Your task to perform on an android device: Open Google Maps Image 0: 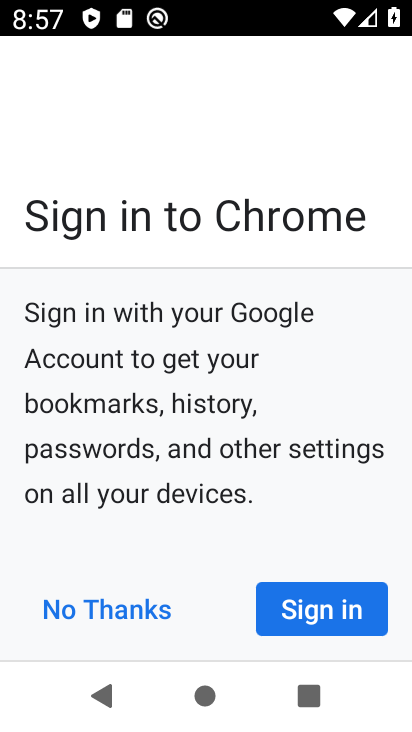
Step 0: press home button
Your task to perform on an android device: Open Google Maps Image 1: 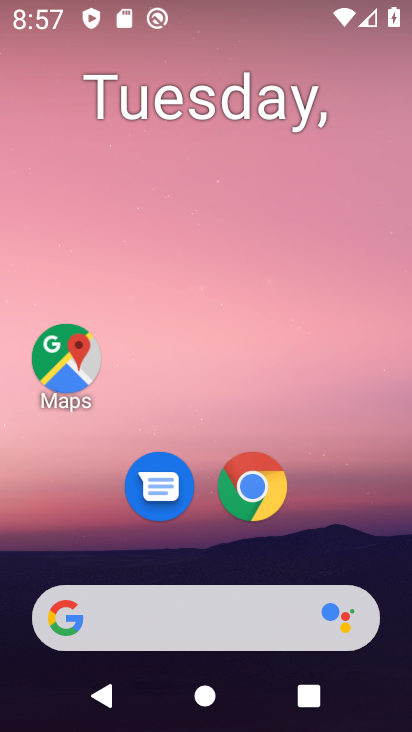
Step 1: drag from (389, 554) to (383, 82)
Your task to perform on an android device: Open Google Maps Image 2: 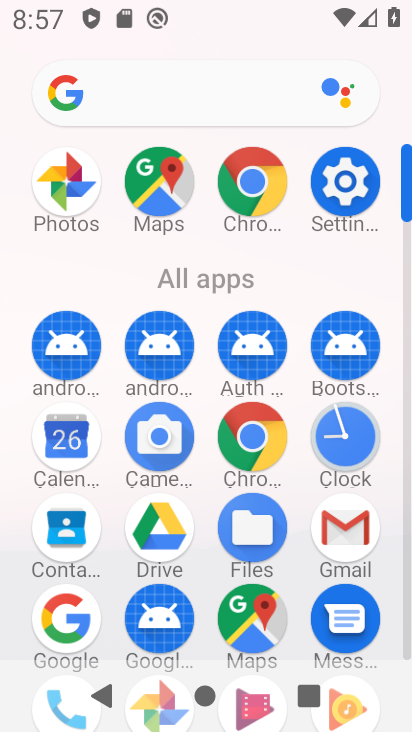
Step 2: click (164, 188)
Your task to perform on an android device: Open Google Maps Image 3: 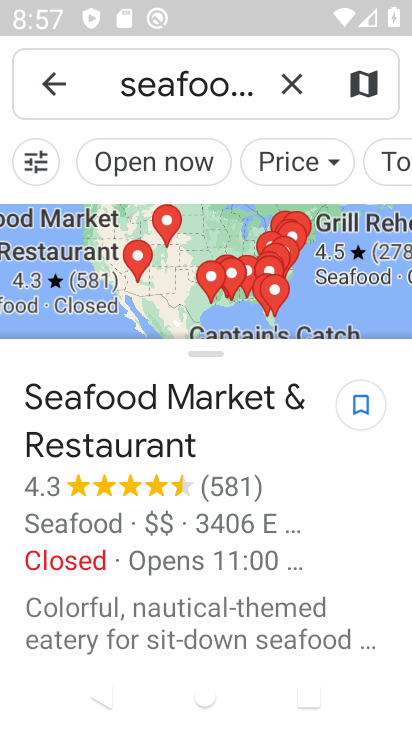
Step 3: task complete